Your task to perform on an android device: uninstall "Mercado Libre" Image 0: 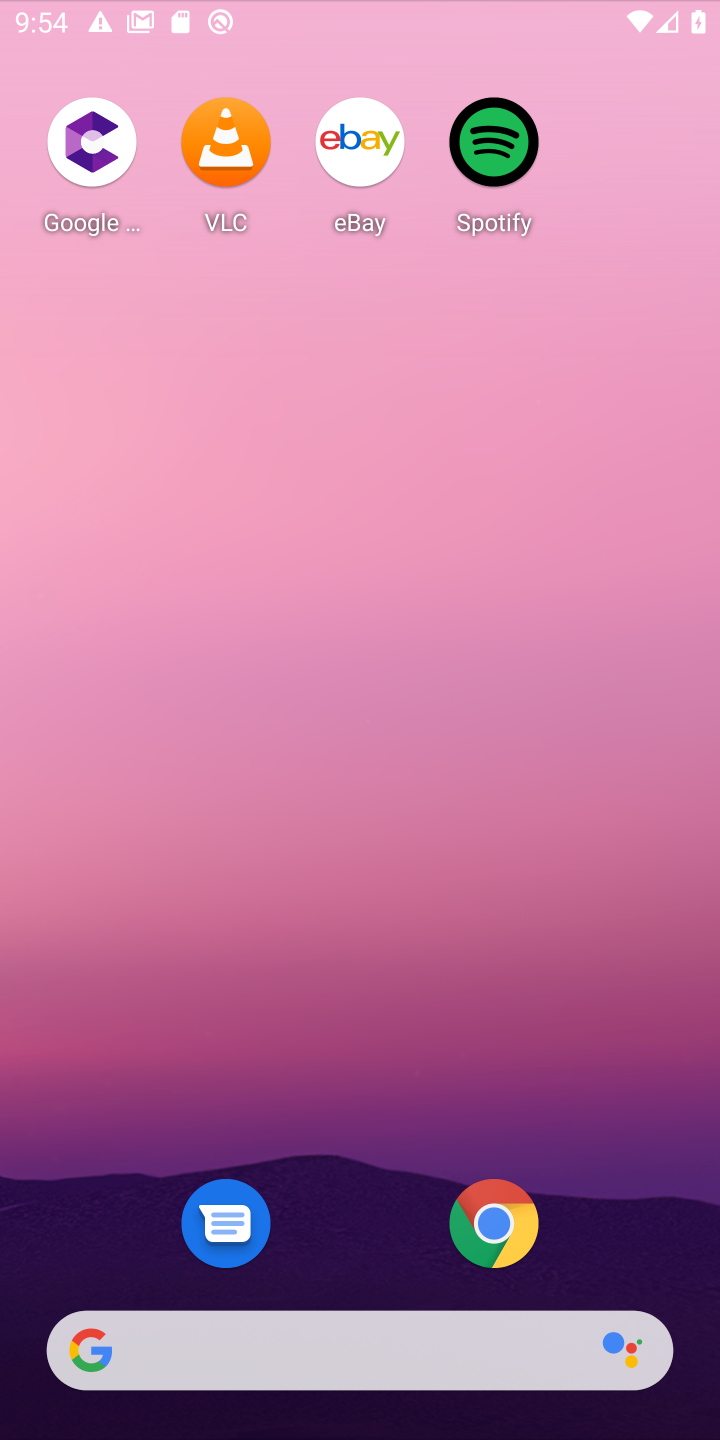
Step 0: press home button
Your task to perform on an android device: uninstall "Mercado Libre" Image 1: 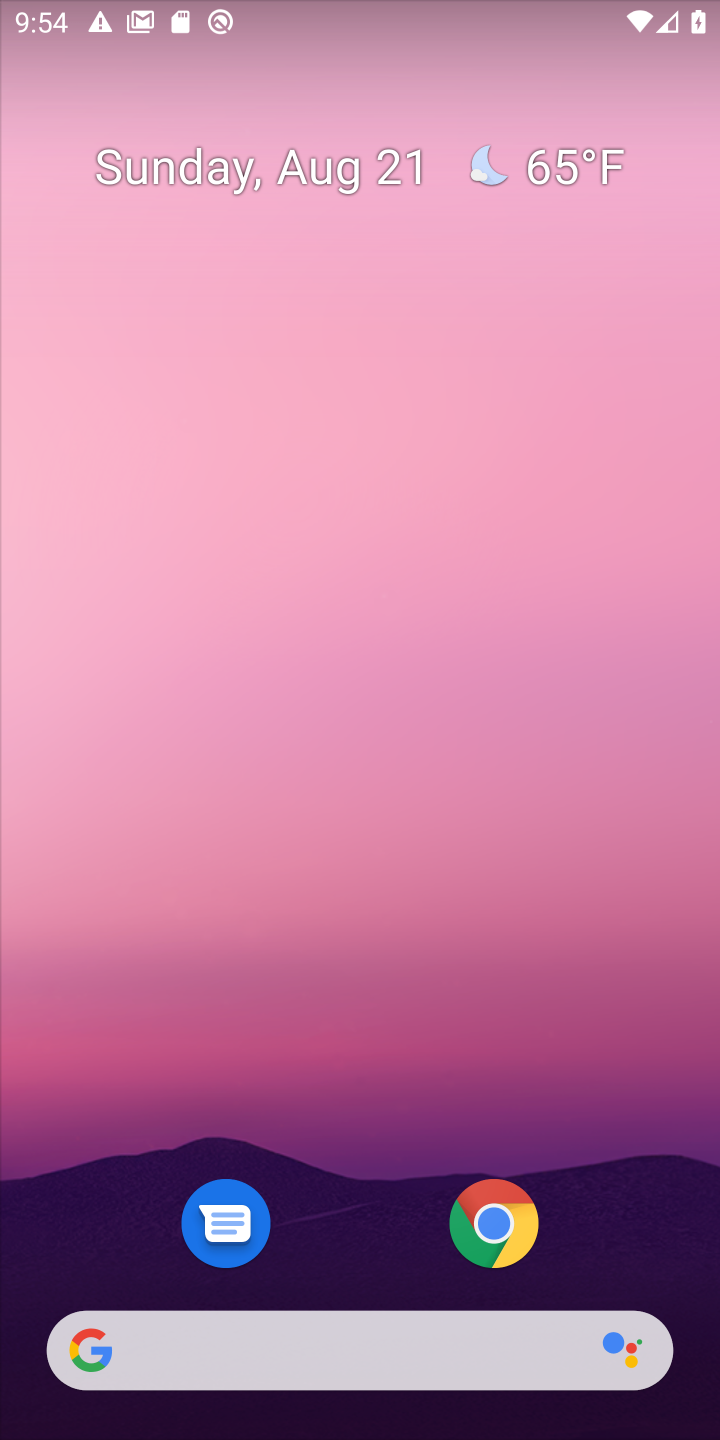
Step 1: drag from (616, 1108) to (641, 120)
Your task to perform on an android device: uninstall "Mercado Libre" Image 2: 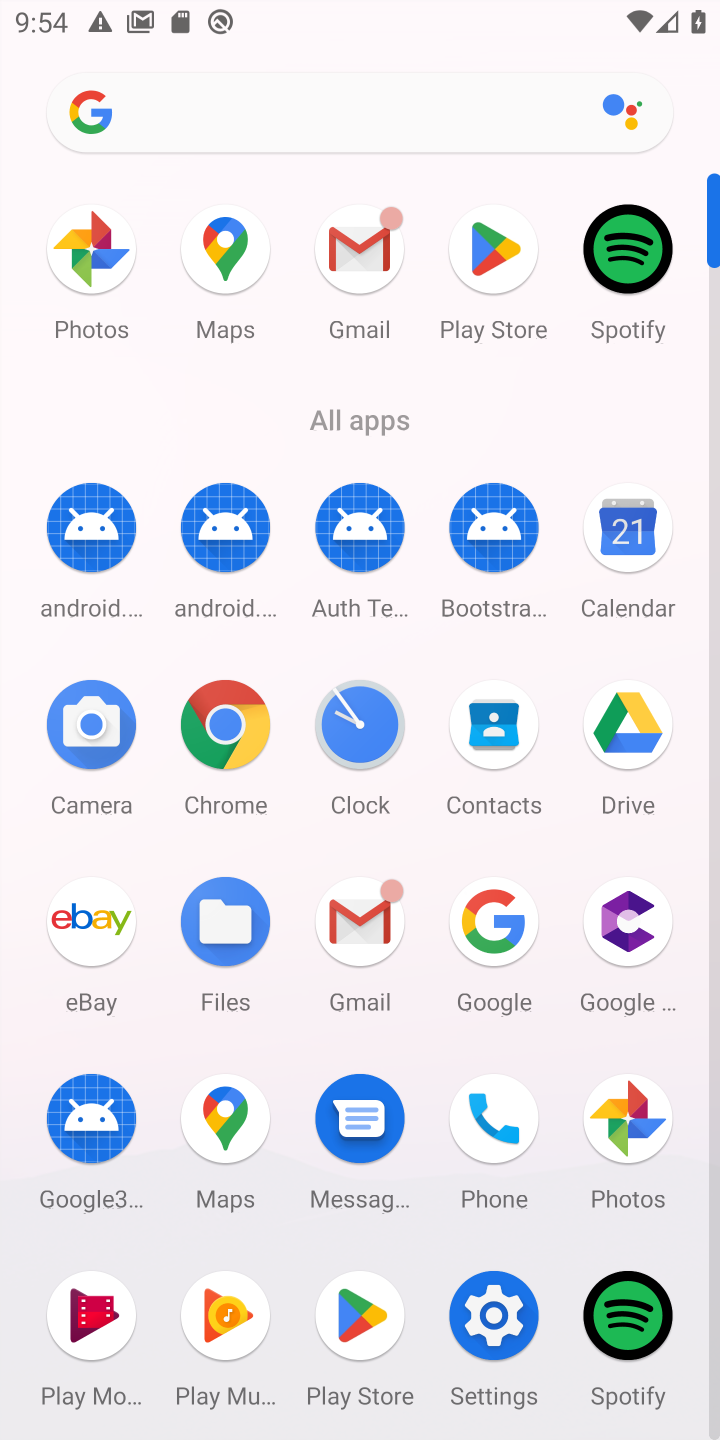
Step 2: click (503, 259)
Your task to perform on an android device: uninstall "Mercado Libre" Image 3: 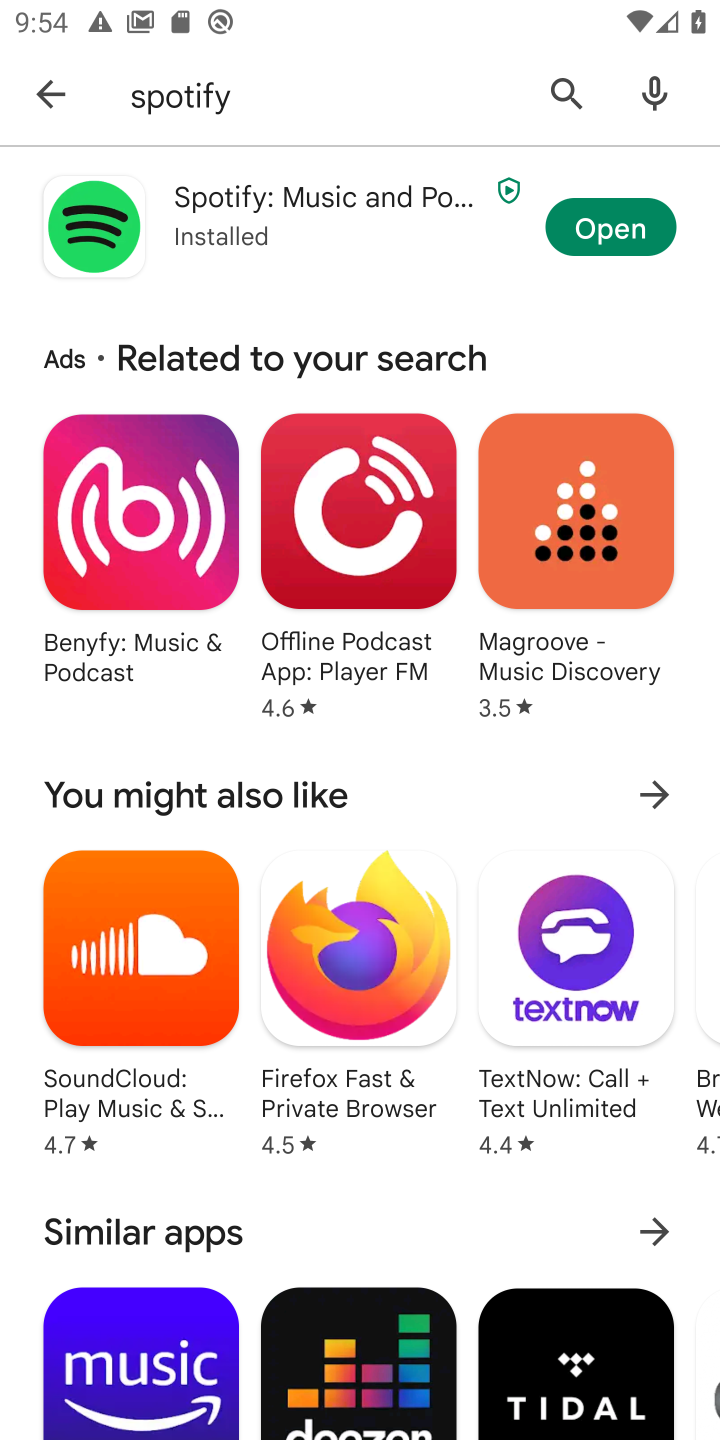
Step 3: press back button
Your task to perform on an android device: uninstall "Mercado Libre" Image 4: 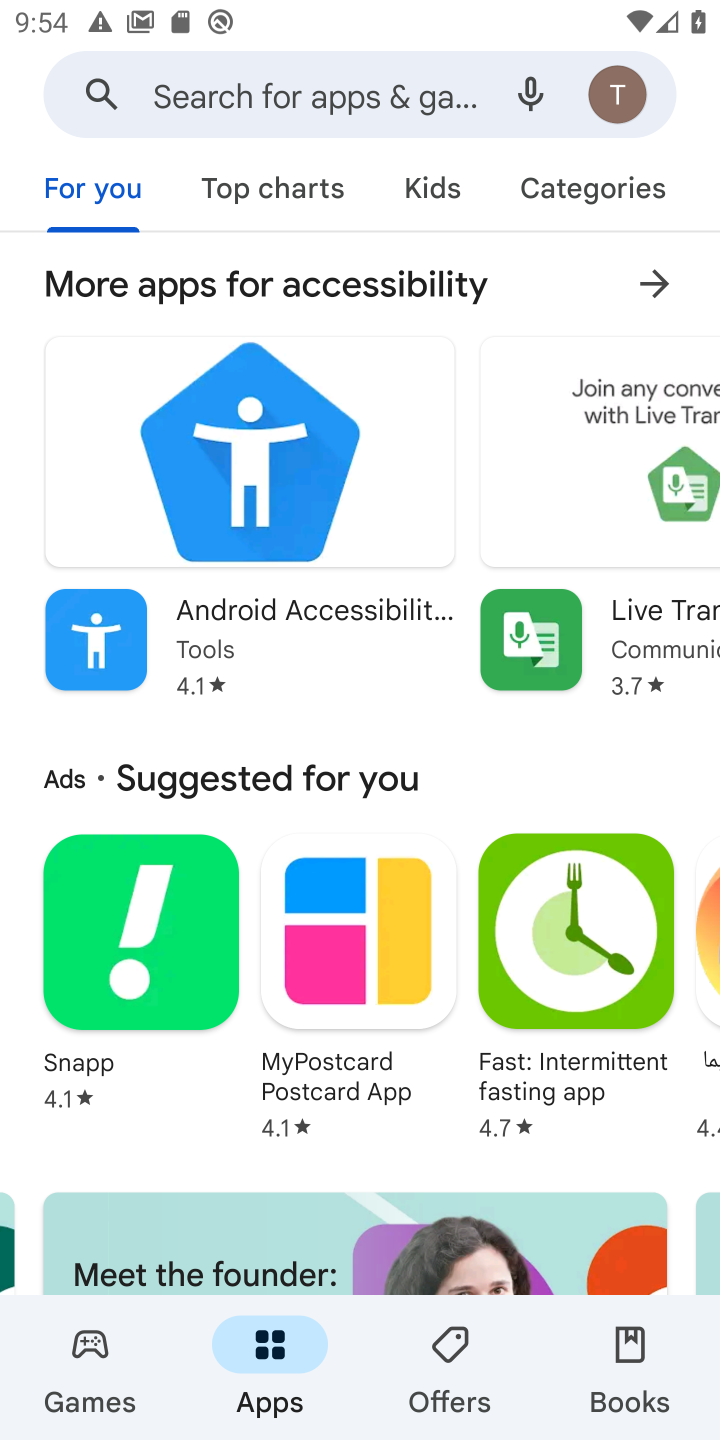
Step 4: click (266, 83)
Your task to perform on an android device: uninstall "Mercado Libre" Image 5: 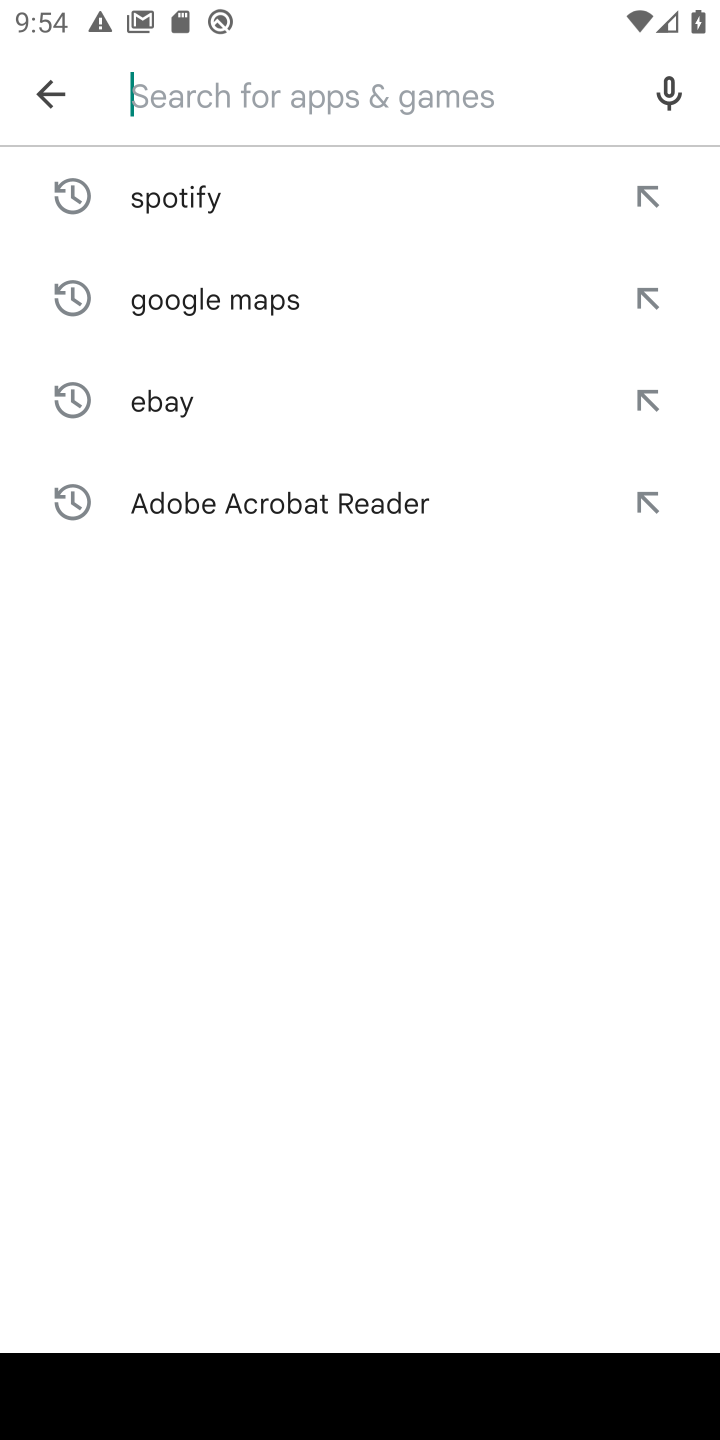
Step 5: press enter
Your task to perform on an android device: uninstall "Mercado Libre" Image 6: 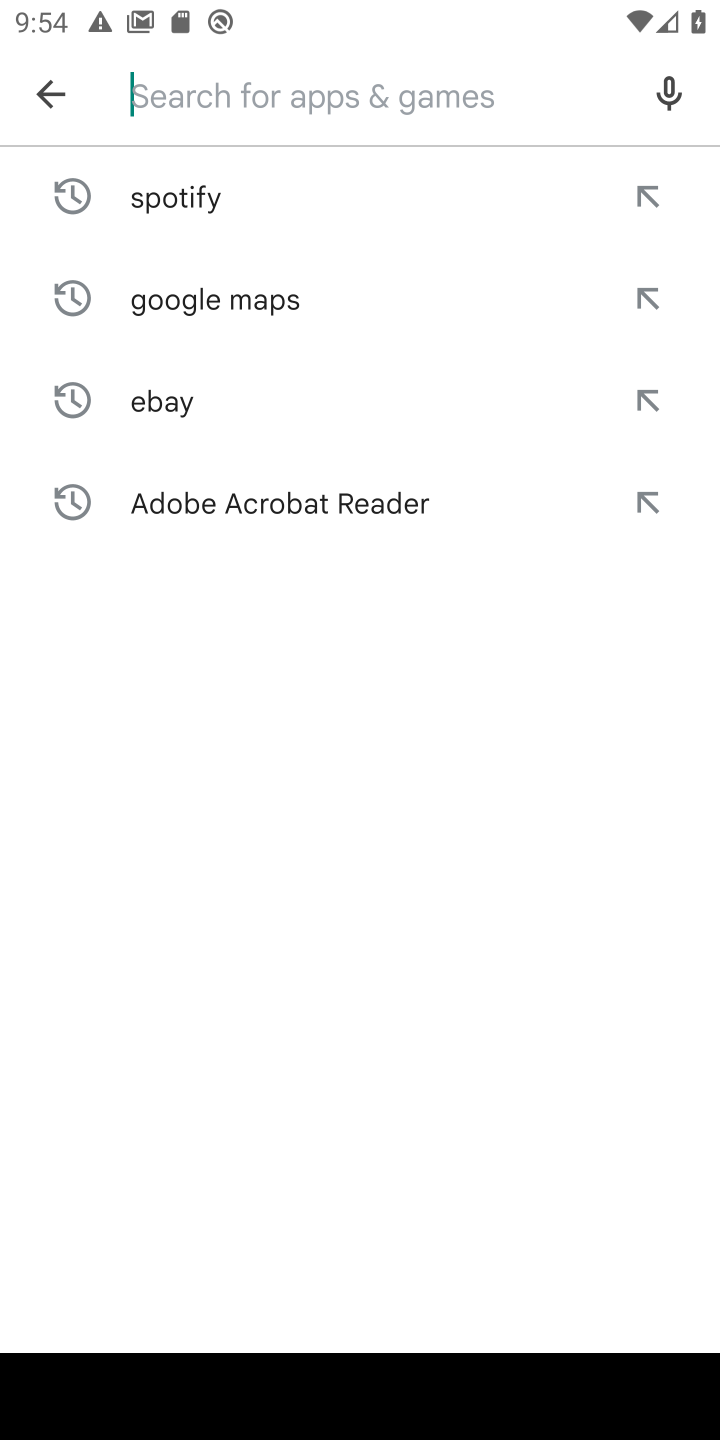
Step 6: type "mercado libre"
Your task to perform on an android device: uninstall "Mercado Libre" Image 7: 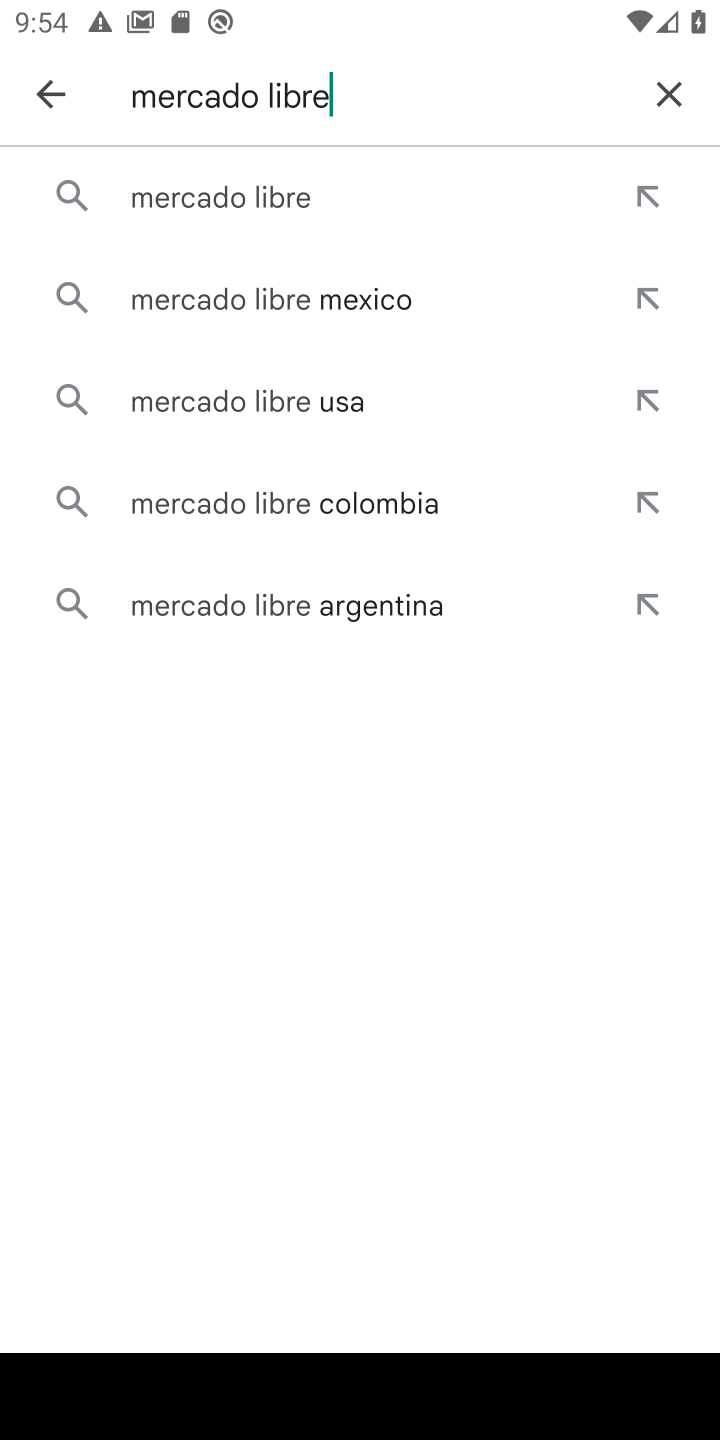
Step 7: click (322, 201)
Your task to perform on an android device: uninstall "Mercado Libre" Image 8: 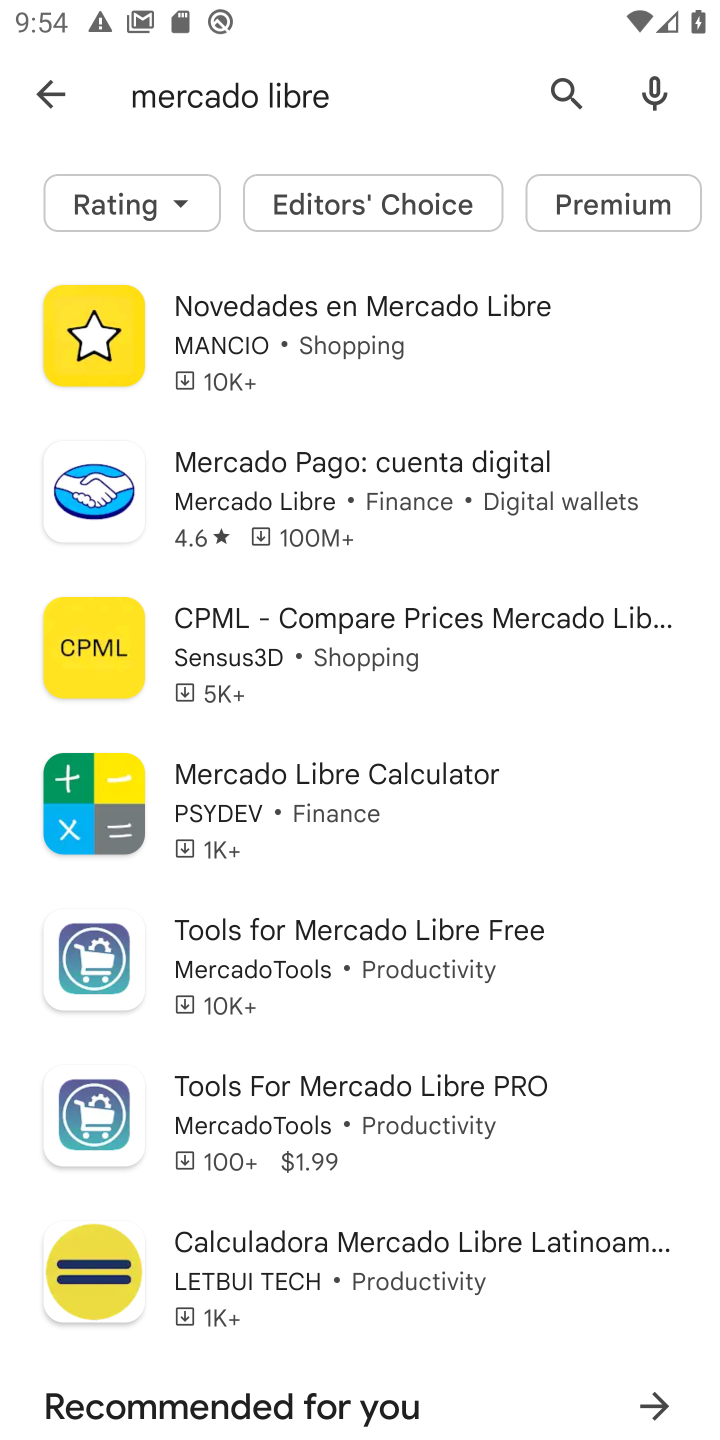
Step 8: task complete